Your task to perform on an android device: Add razer blade to the cart on amazon, then select checkout. Image 0: 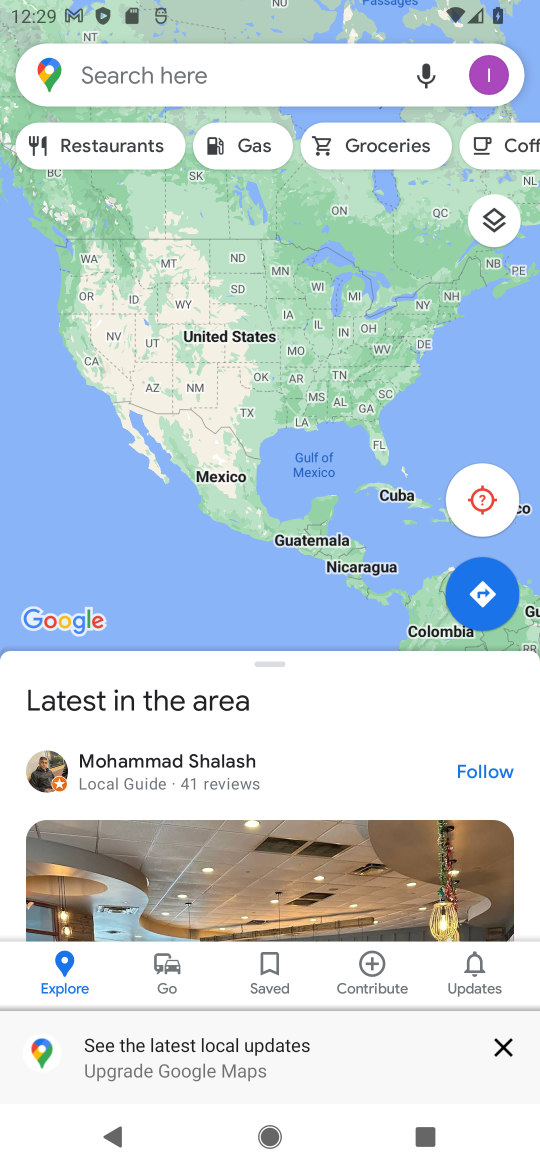
Step 0: press home button
Your task to perform on an android device: Add razer blade to the cart on amazon, then select checkout. Image 1: 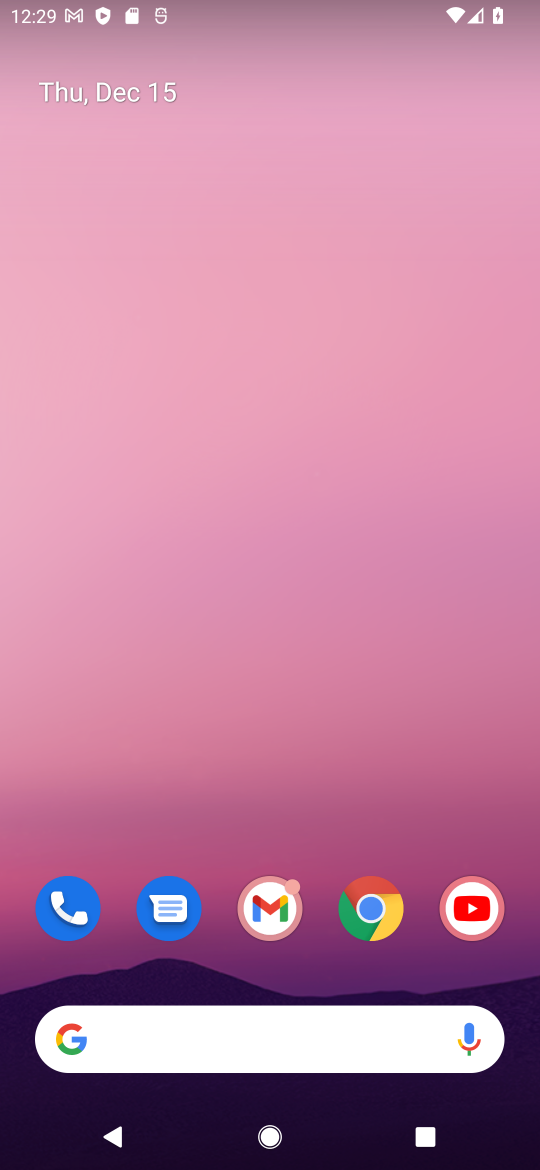
Step 1: click (384, 916)
Your task to perform on an android device: Add razer blade to the cart on amazon, then select checkout. Image 2: 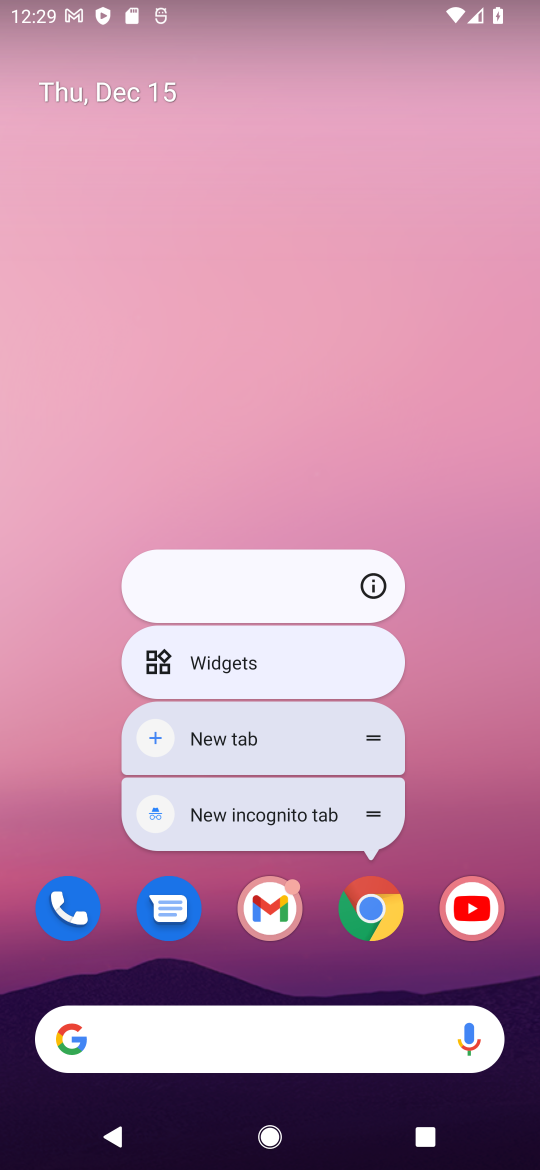
Step 2: click (367, 904)
Your task to perform on an android device: Add razer blade to the cart on amazon, then select checkout. Image 3: 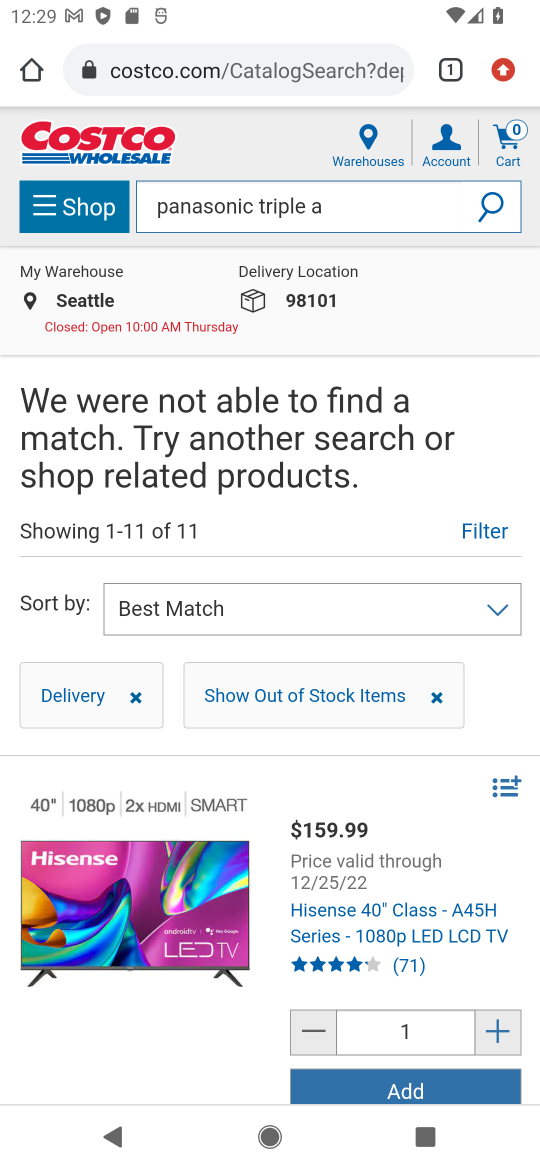
Step 3: click (229, 72)
Your task to perform on an android device: Add razer blade to the cart on amazon, then select checkout. Image 4: 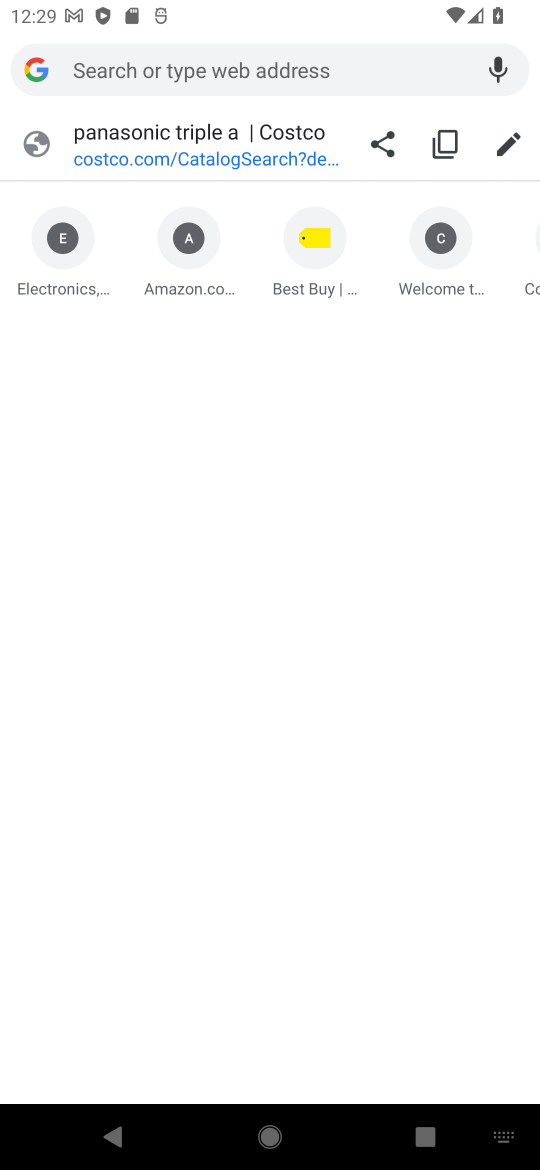
Step 4: click (165, 294)
Your task to perform on an android device: Add razer blade to the cart on amazon, then select checkout. Image 5: 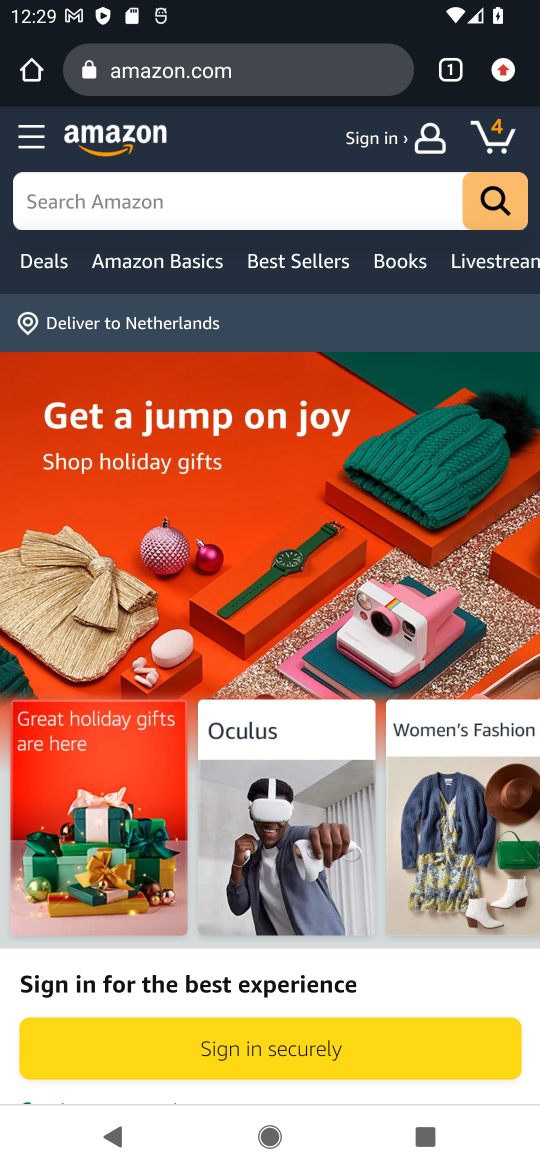
Step 5: click (151, 190)
Your task to perform on an android device: Add razer blade to the cart on amazon, then select checkout. Image 6: 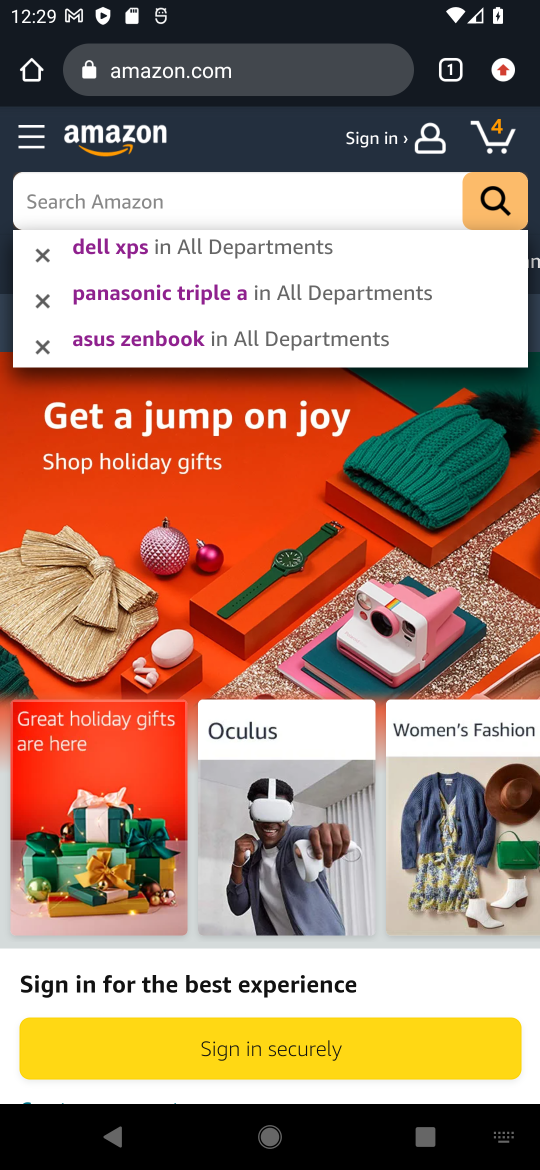
Step 6: click (129, 197)
Your task to perform on an android device: Add razer blade to the cart on amazon, then select checkout. Image 7: 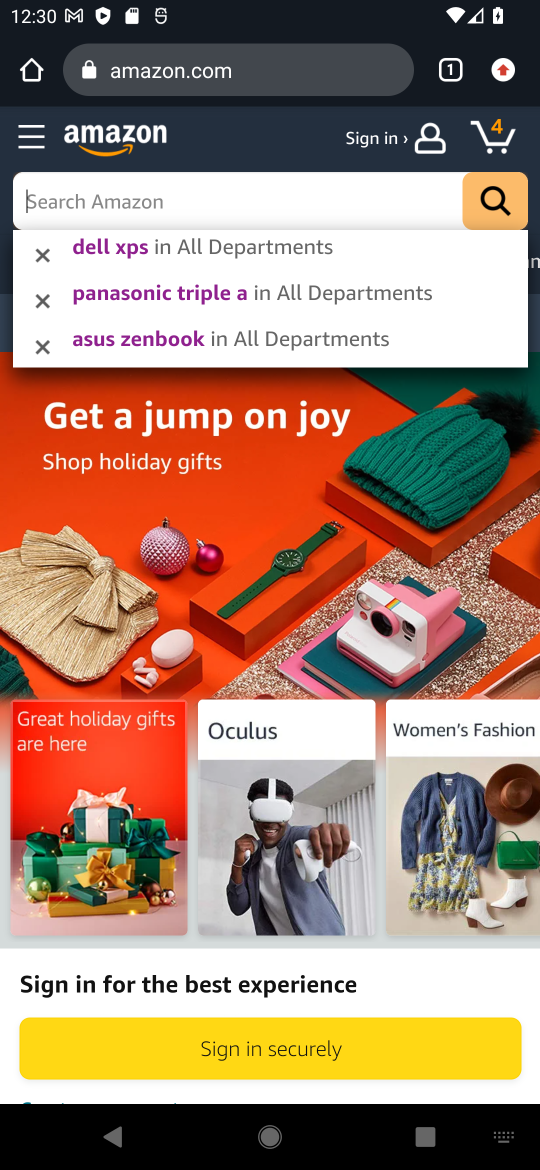
Step 7: type " razer blade"
Your task to perform on an android device: Add razer blade to the cart on amazon, then select checkout. Image 8: 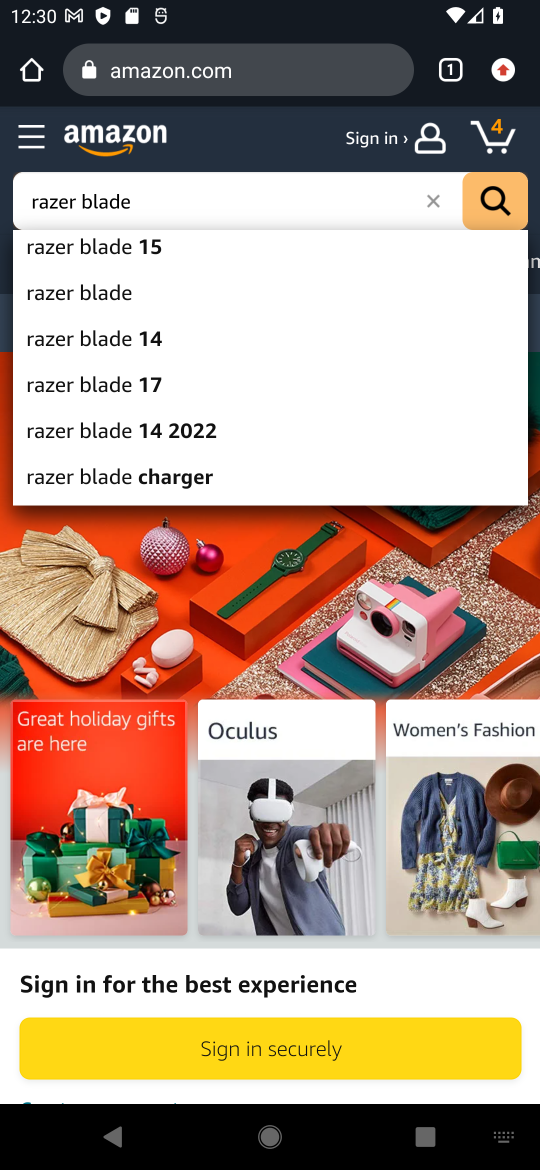
Step 8: click (91, 303)
Your task to perform on an android device: Add razer blade to the cart on amazon, then select checkout. Image 9: 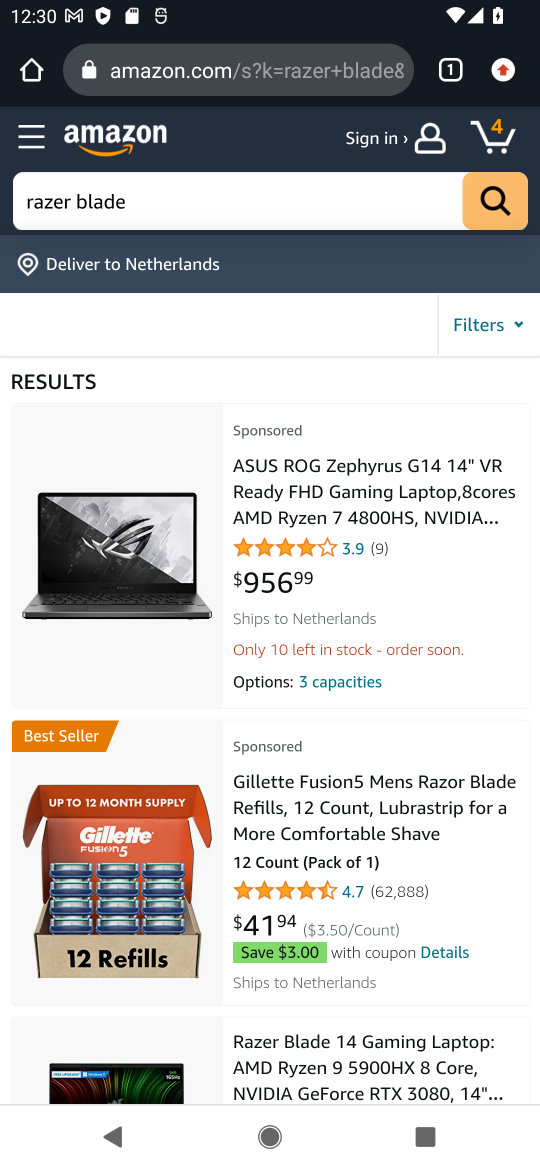
Step 9: drag from (285, 849) to (299, 639)
Your task to perform on an android device: Add razer blade to the cart on amazon, then select checkout. Image 10: 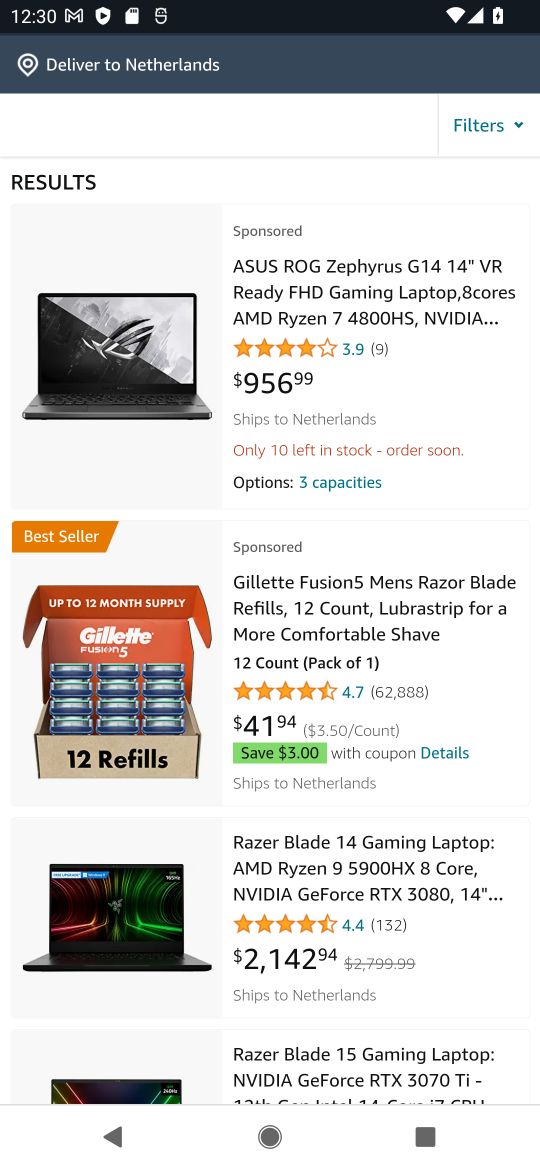
Step 10: drag from (273, 899) to (291, 624)
Your task to perform on an android device: Add razer blade to the cart on amazon, then select checkout. Image 11: 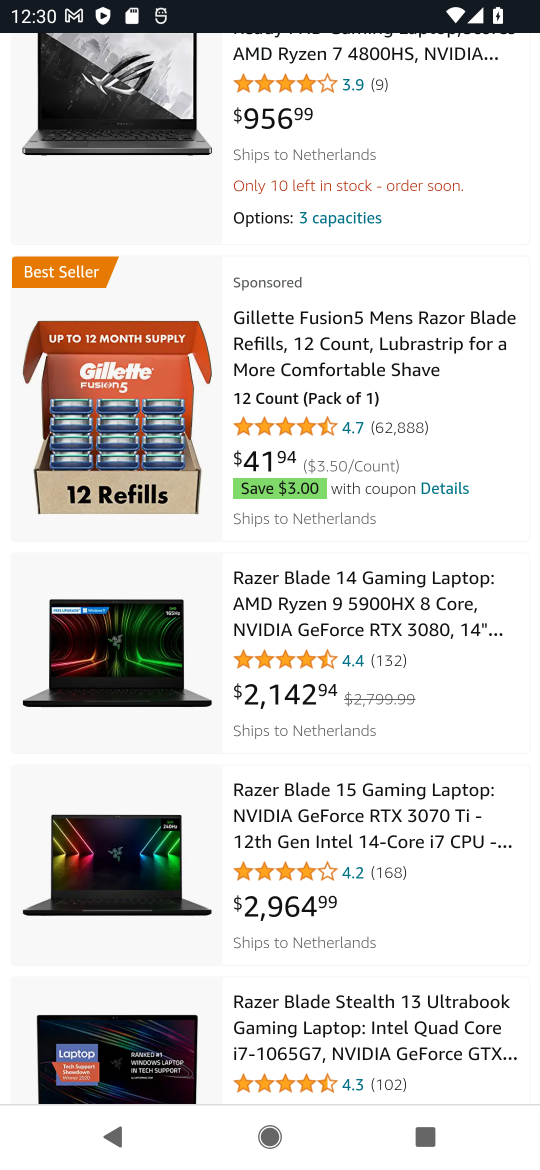
Step 11: click (291, 625)
Your task to perform on an android device: Add razer blade to the cart on amazon, then select checkout. Image 12: 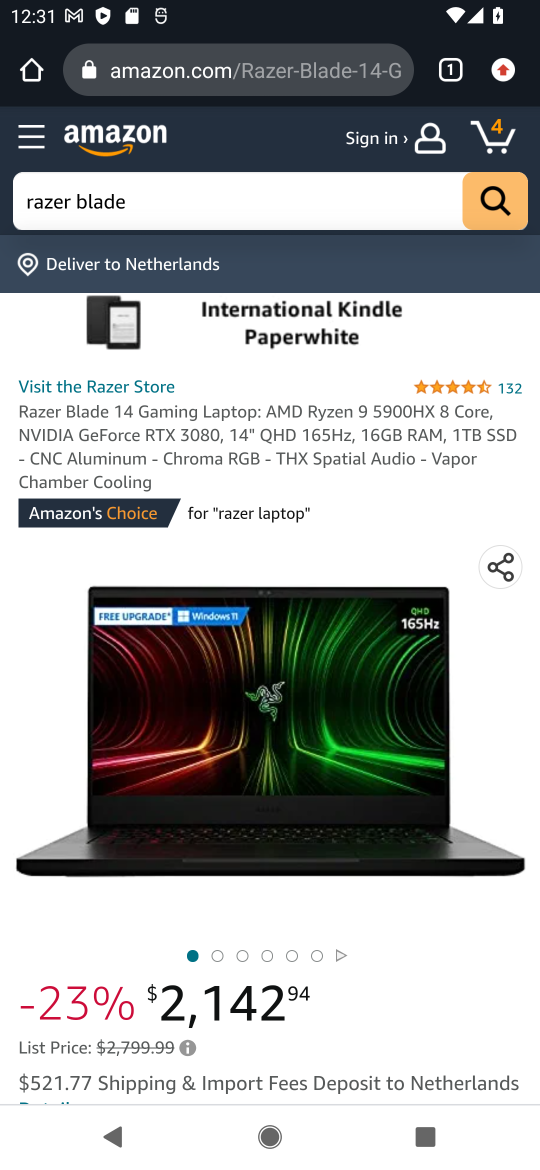
Step 12: drag from (248, 812) to (246, 455)
Your task to perform on an android device: Add razer blade to the cart on amazon, then select checkout. Image 13: 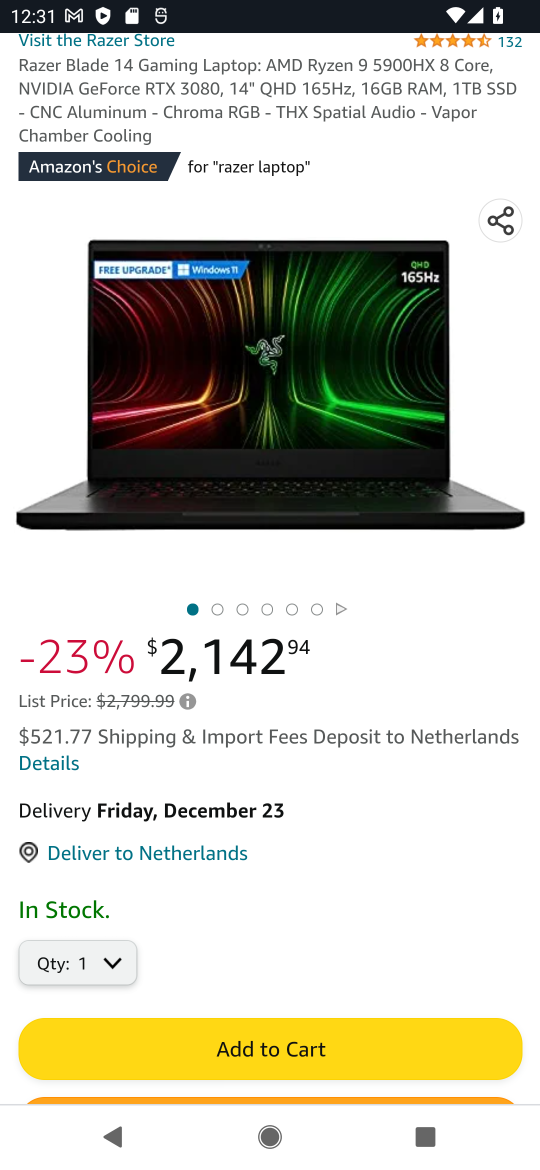
Step 13: drag from (264, 821) to (267, 524)
Your task to perform on an android device: Add razer blade to the cart on amazon, then select checkout. Image 14: 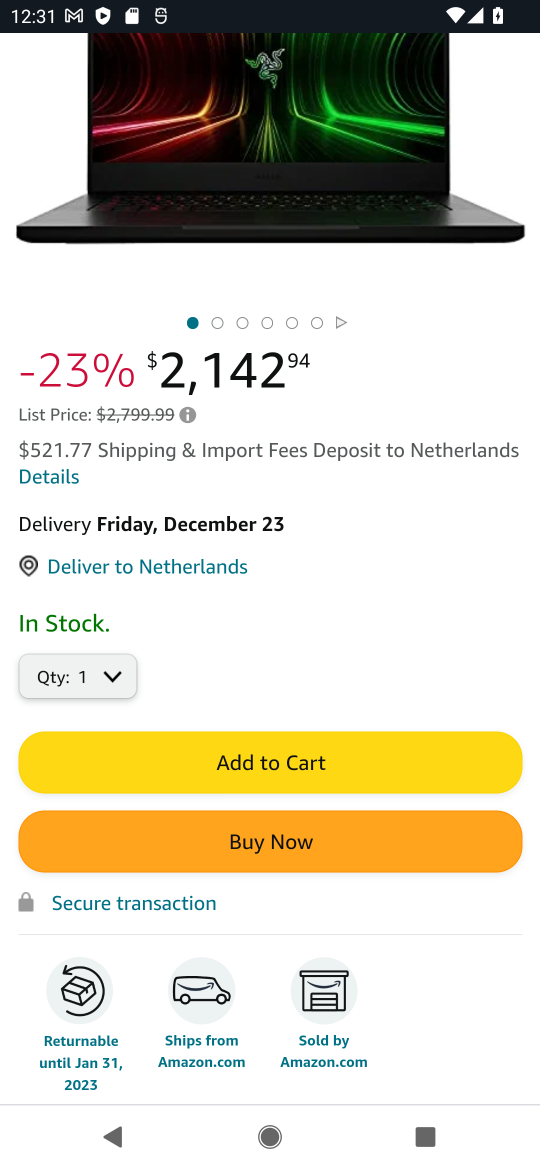
Step 14: click (248, 749)
Your task to perform on an android device: Add razer blade to the cart on amazon, then select checkout. Image 15: 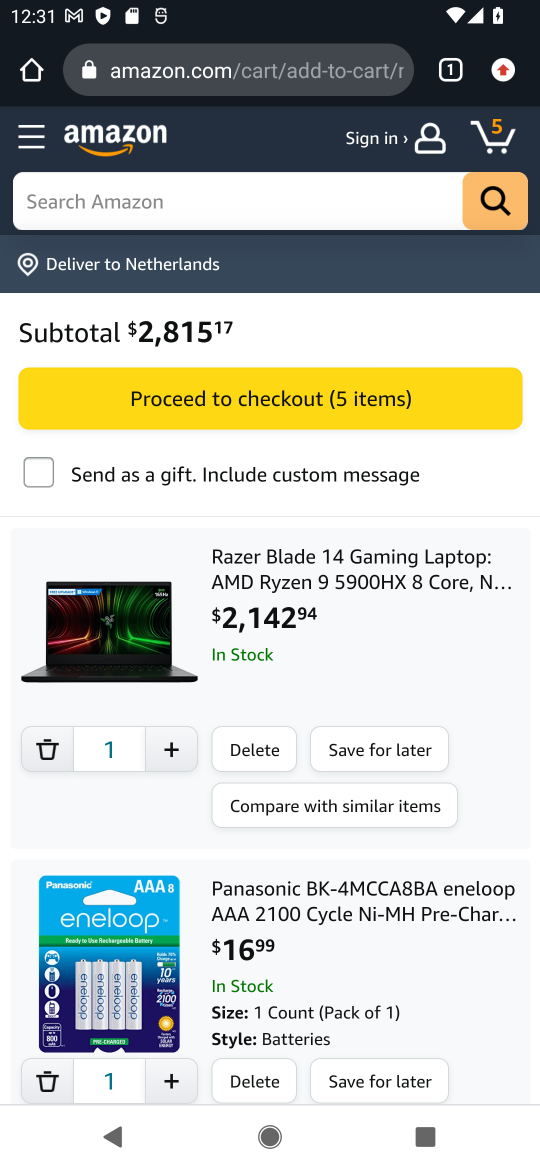
Step 15: click (267, 399)
Your task to perform on an android device: Add razer blade to the cart on amazon, then select checkout. Image 16: 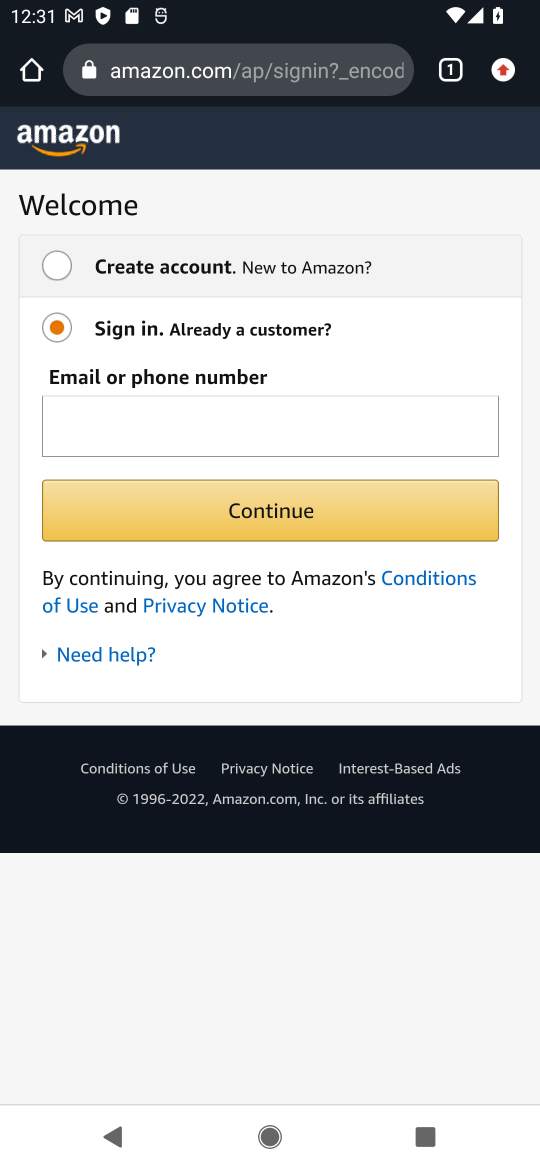
Step 16: task complete